Your task to perform on an android device: Open wifi settings Image 0: 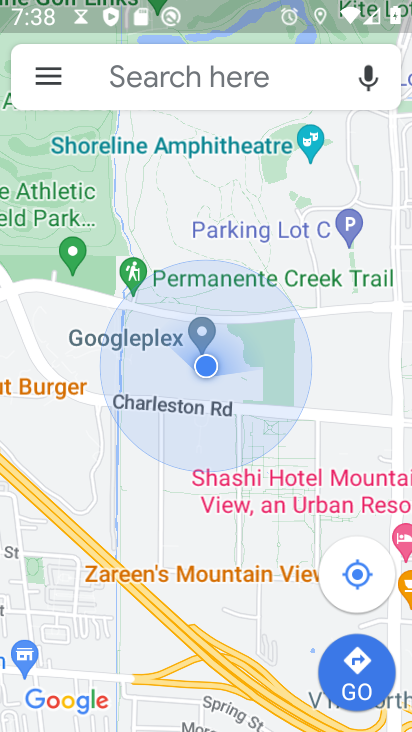
Step 0: press home button
Your task to perform on an android device: Open wifi settings Image 1: 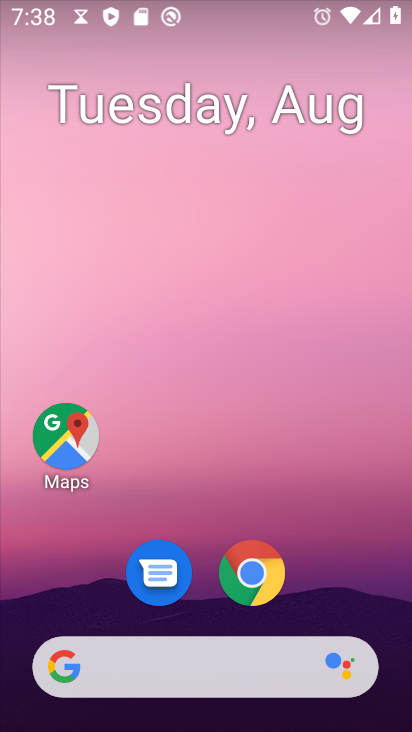
Step 1: drag from (208, 617) to (253, 72)
Your task to perform on an android device: Open wifi settings Image 2: 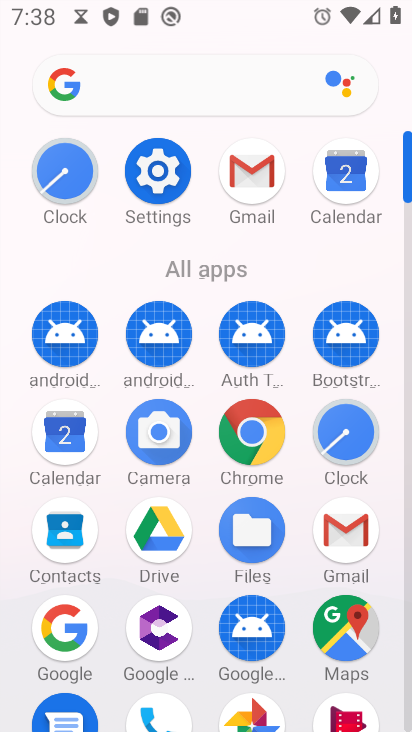
Step 2: click (154, 167)
Your task to perform on an android device: Open wifi settings Image 3: 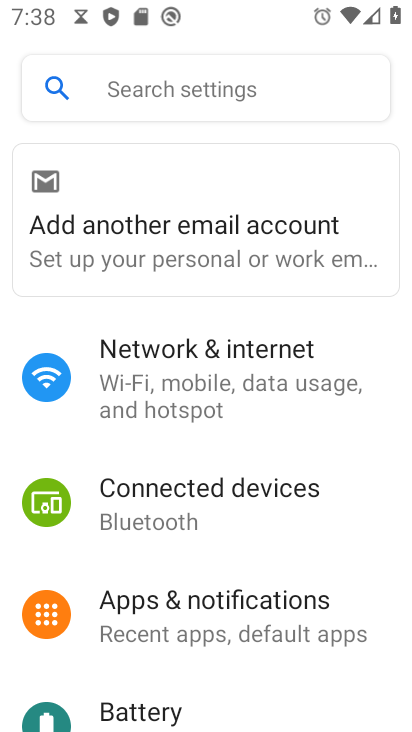
Step 3: click (85, 368)
Your task to perform on an android device: Open wifi settings Image 4: 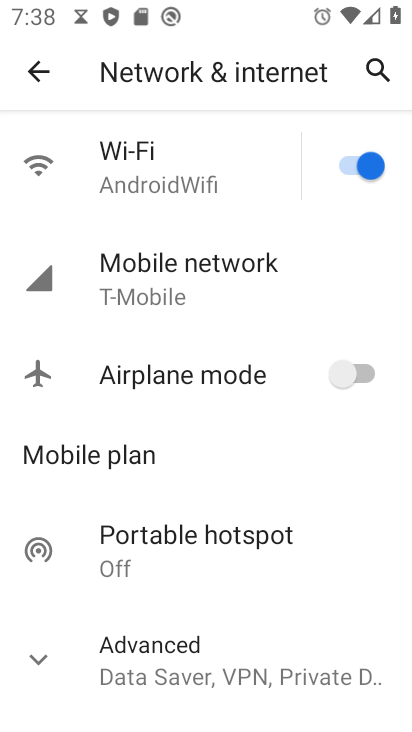
Step 4: click (178, 150)
Your task to perform on an android device: Open wifi settings Image 5: 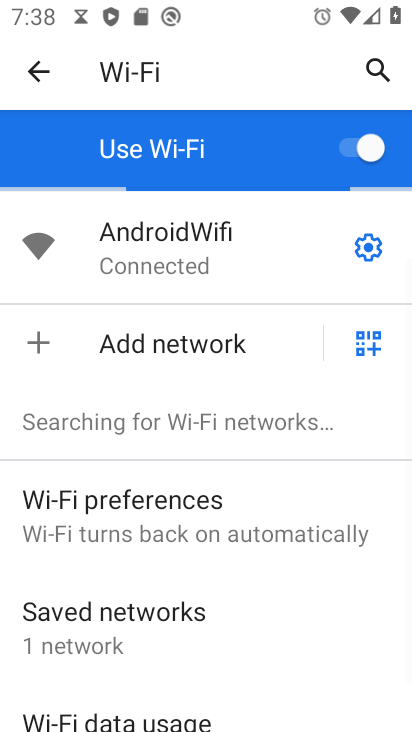
Step 5: task complete